Your task to perform on an android device: Open the phone app and click the voicemail tab. Image 0: 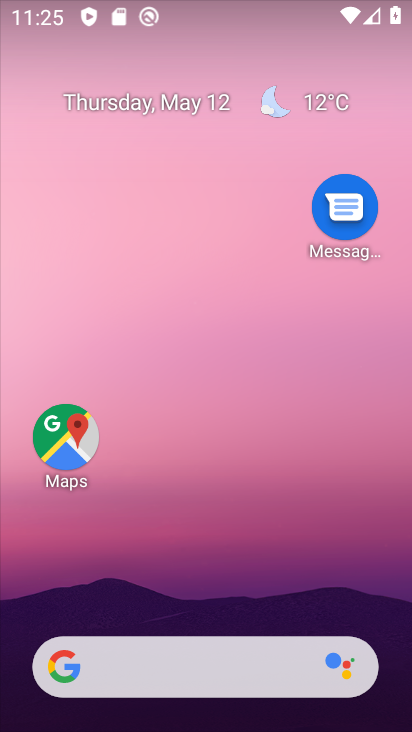
Step 0: drag from (200, 566) to (215, 124)
Your task to perform on an android device: Open the phone app and click the voicemail tab. Image 1: 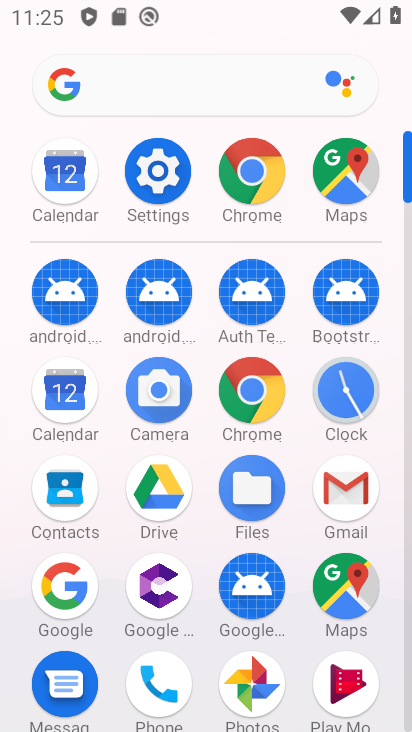
Step 1: click (174, 680)
Your task to perform on an android device: Open the phone app and click the voicemail tab. Image 2: 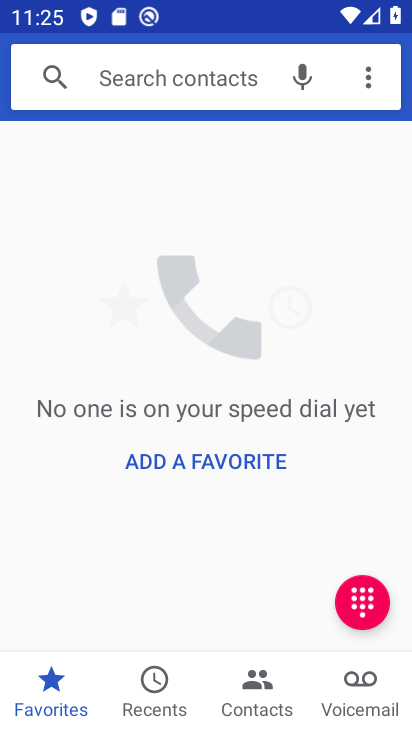
Step 2: click (346, 720)
Your task to perform on an android device: Open the phone app and click the voicemail tab. Image 3: 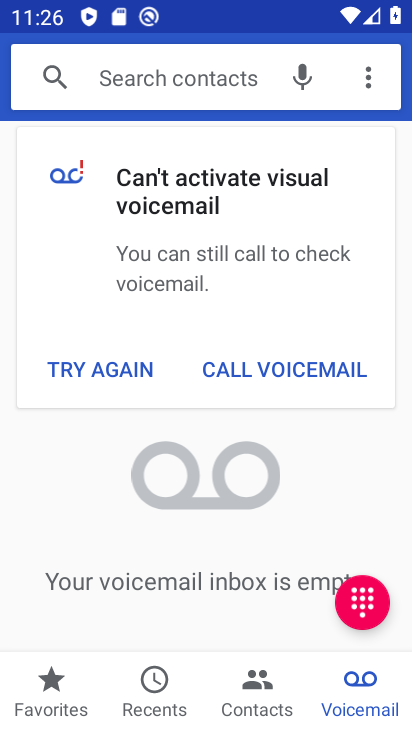
Step 3: task complete